Your task to perform on an android device: Search for usb-b on ebay, select the first entry, and add it to the cart. Image 0: 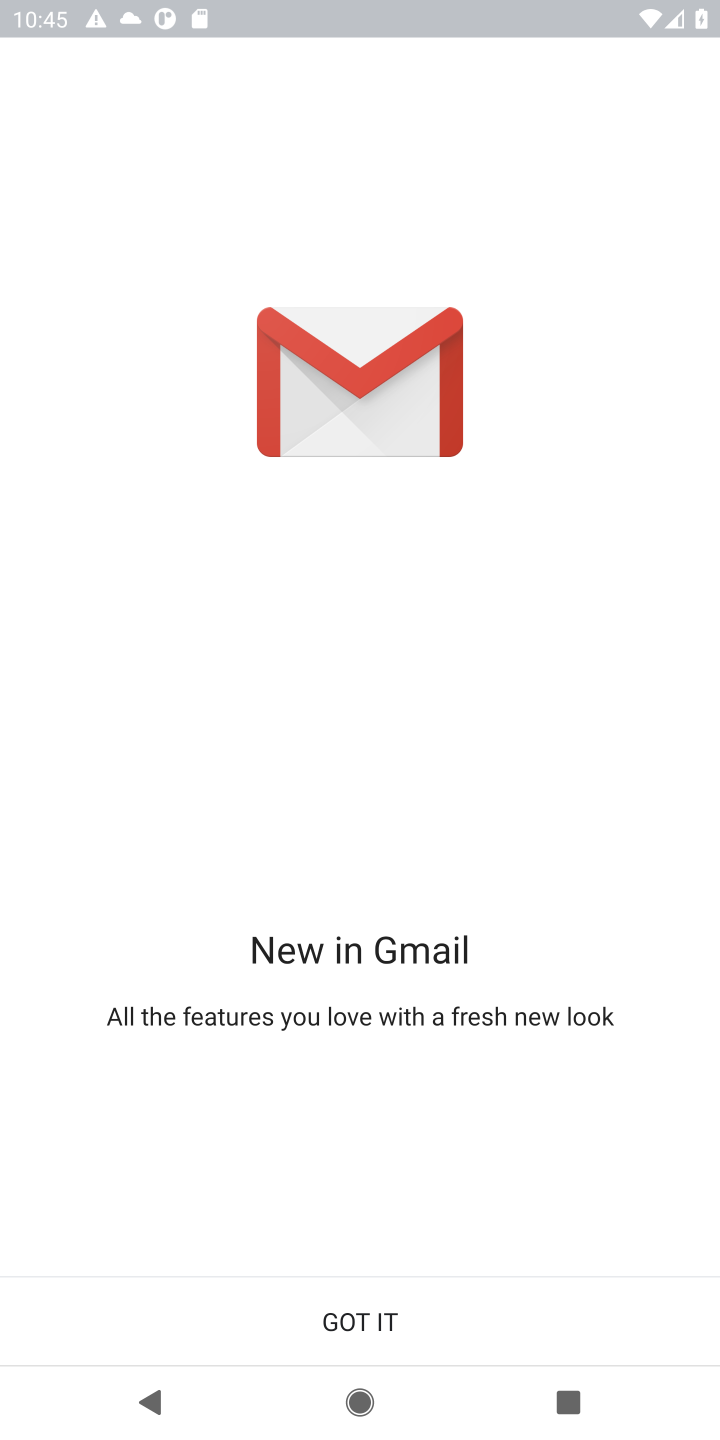
Step 0: press home button
Your task to perform on an android device: Search for usb-b on ebay, select the first entry, and add it to the cart. Image 1: 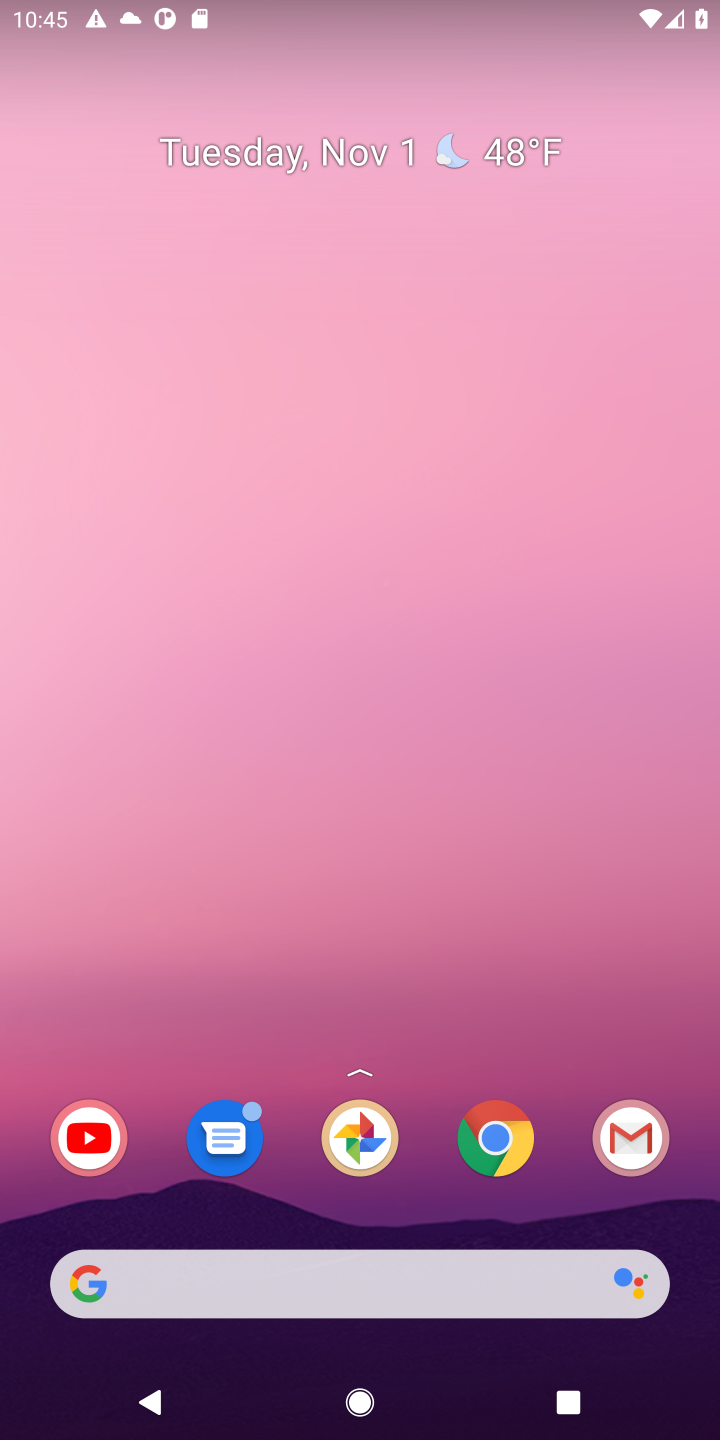
Step 1: drag from (428, 861) to (427, 0)
Your task to perform on an android device: Search for usb-b on ebay, select the first entry, and add it to the cart. Image 2: 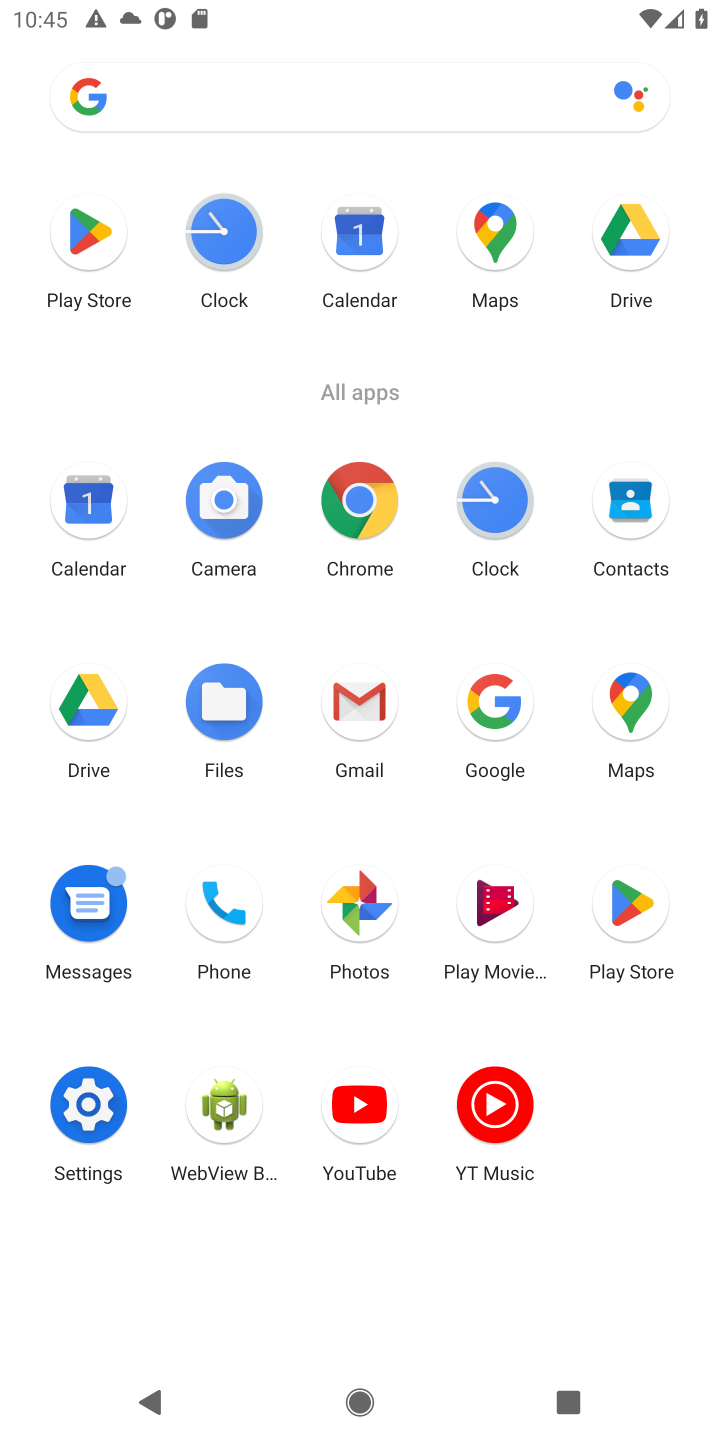
Step 2: click (349, 492)
Your task to perform on an android device: Search for usb-b on ebay, select the first entry, and add it to the cart. Image 3: 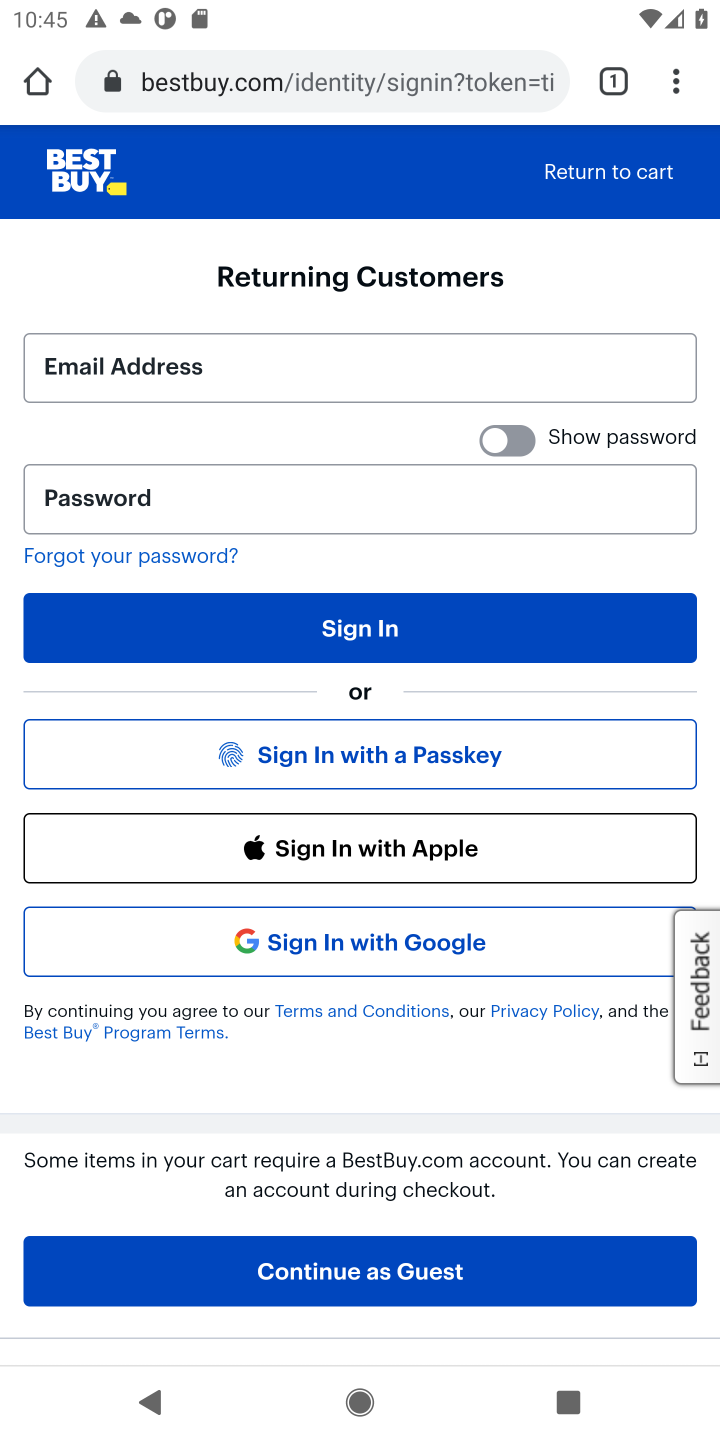
Step 3: click (268, 84)
Your task to perform on an android device: Search for usb-b on ebay, select the first entry, and add it to the cart. Image 4: 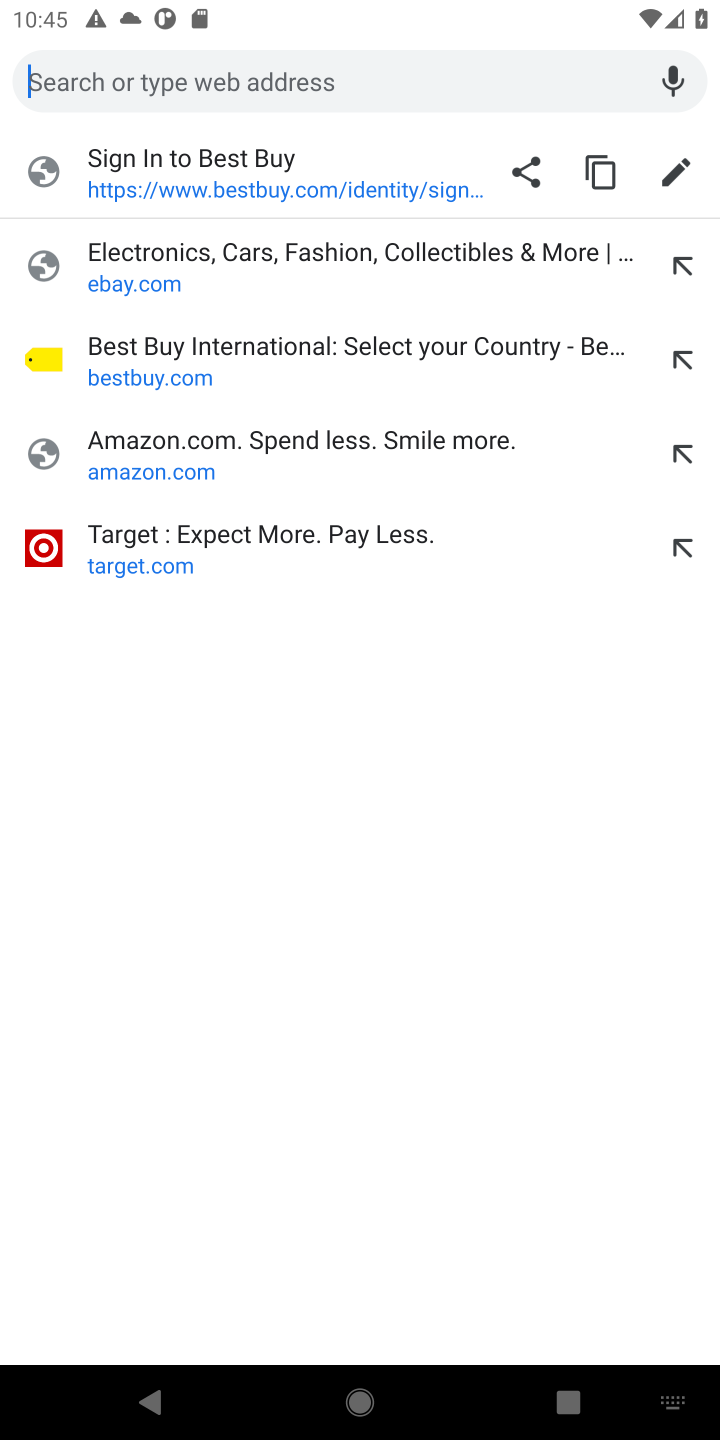
Step 4: type "ebay"
Your task to perform on an android device: Search for usb-b on ebay, select the first entry, and add it to the cart. Image 5: 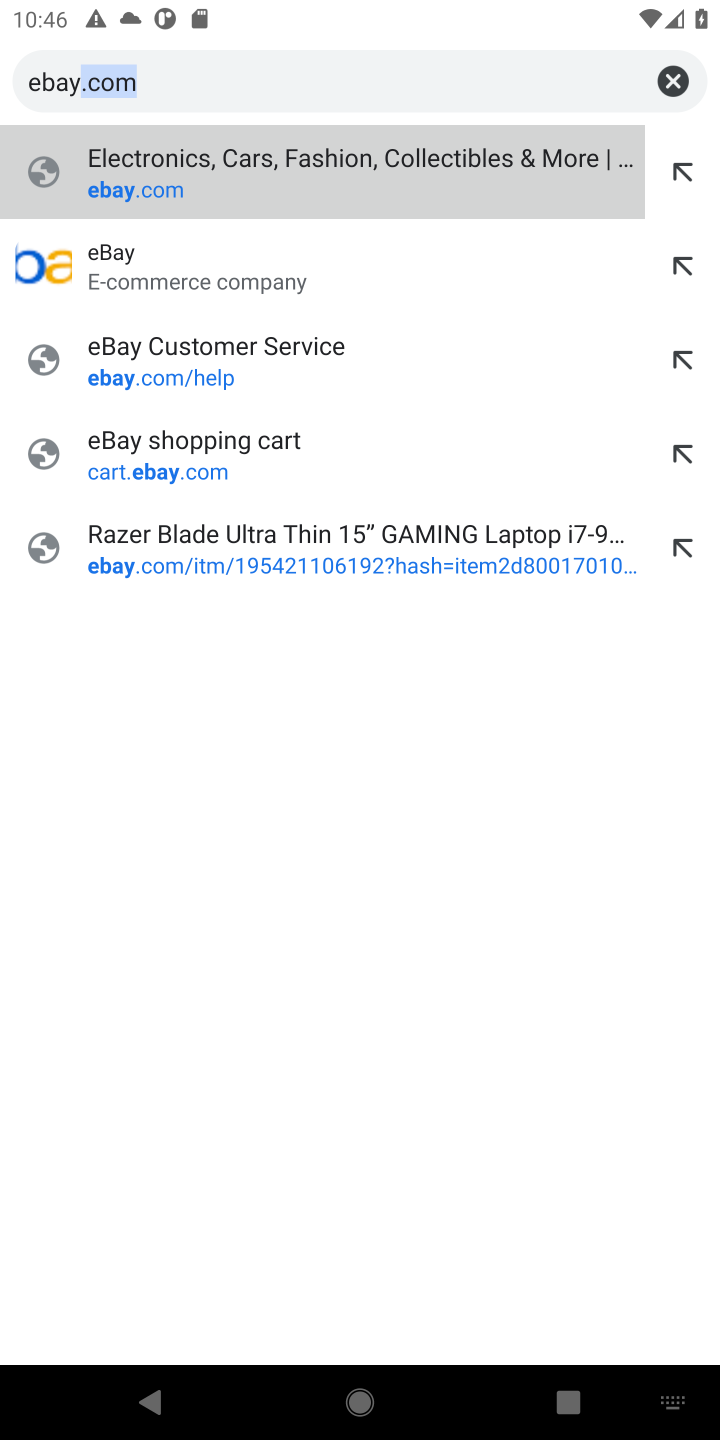
Step 5: click (141, 186)
Your task to perform on an android device: Search for usb-b on ebay, select the first entry, and add it to the cart. Image 6: 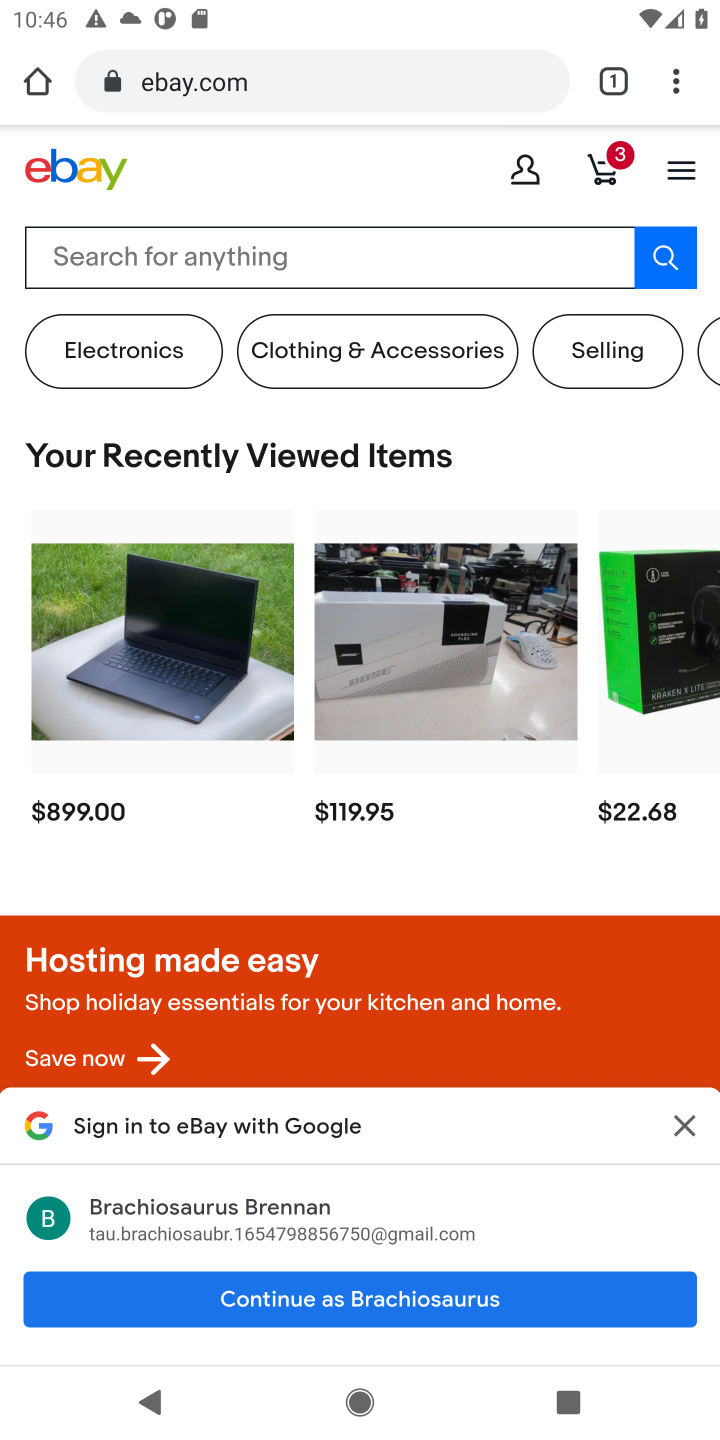
Step 6: click (117, 232)
Your task to perform on an android device: Search for usb-b on ebay, select the first entry, and add it to the cart. Image 7: 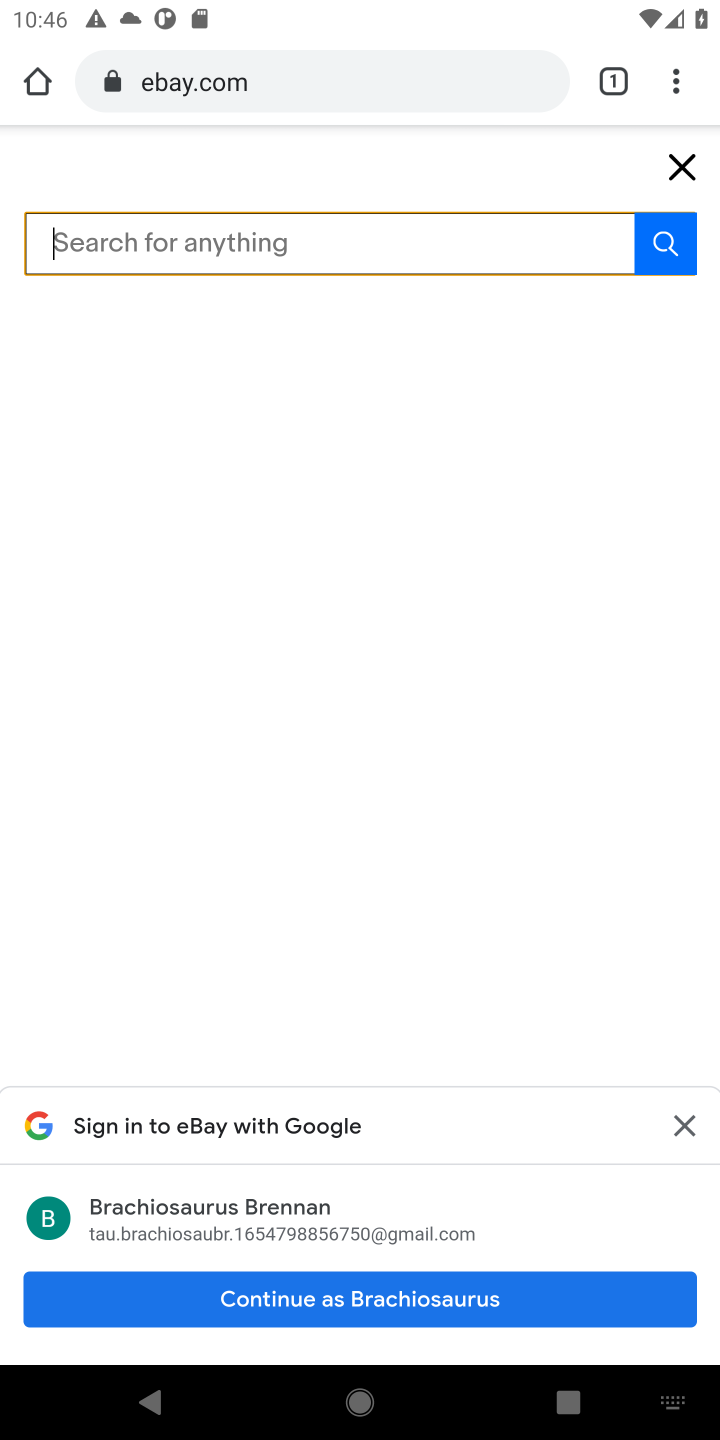
Step 7: type "usb-b"
Your task to perform on an android device: Search for usb-b on ebay, select the first entry, and add it to the cart. Image 8: 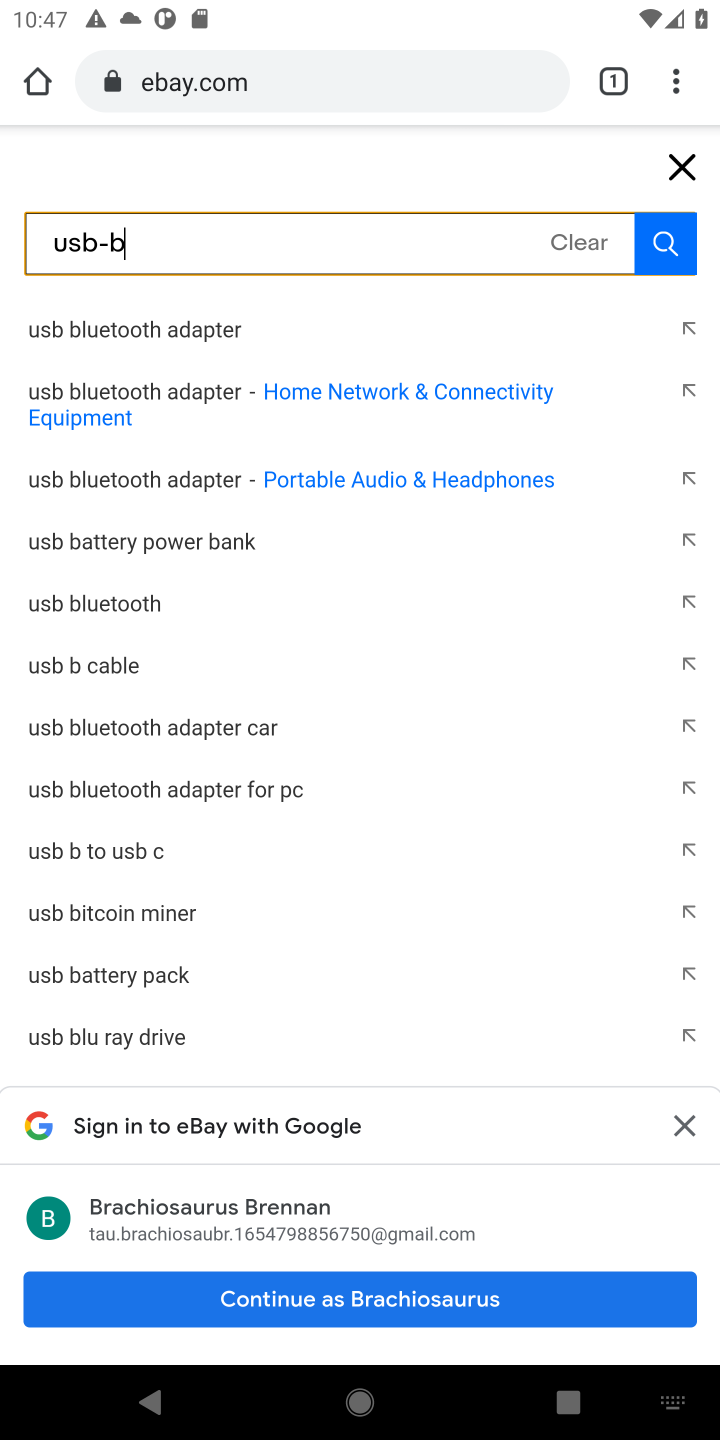
Step 8: click (147, 661)
Your task to perform on an android device: Search for usb-b on ebay, select the first entry, and add it to the cart. Image 9: 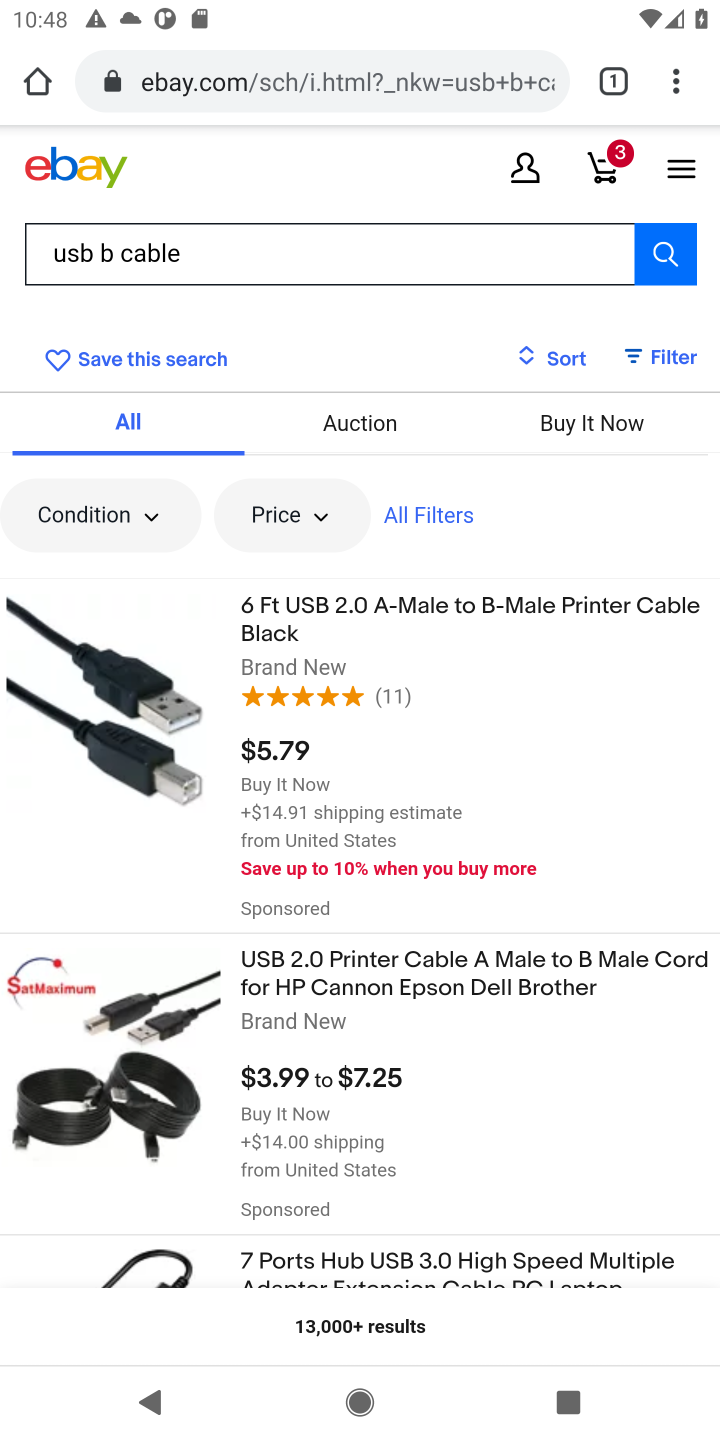
Step 9: click (337, 632)
Your task to perform on an android device: Search for usb-b on ebay, select the first entry, and add it to the cart. Image 10: 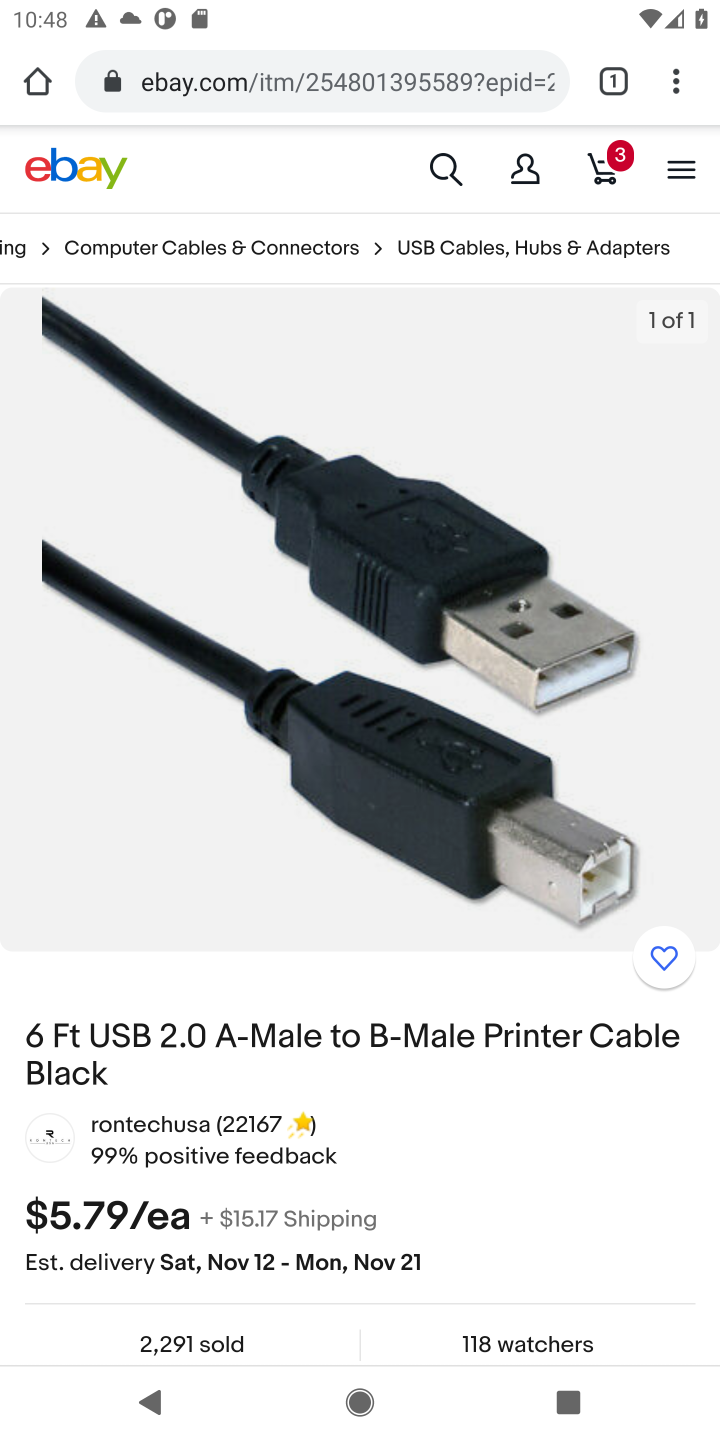
Step 10: drag from (412, 1228) to (449, 151)
Your task to perform on an android device: Search for usb-b on ebay, select the first entry, and add it to the cart. Image 11: 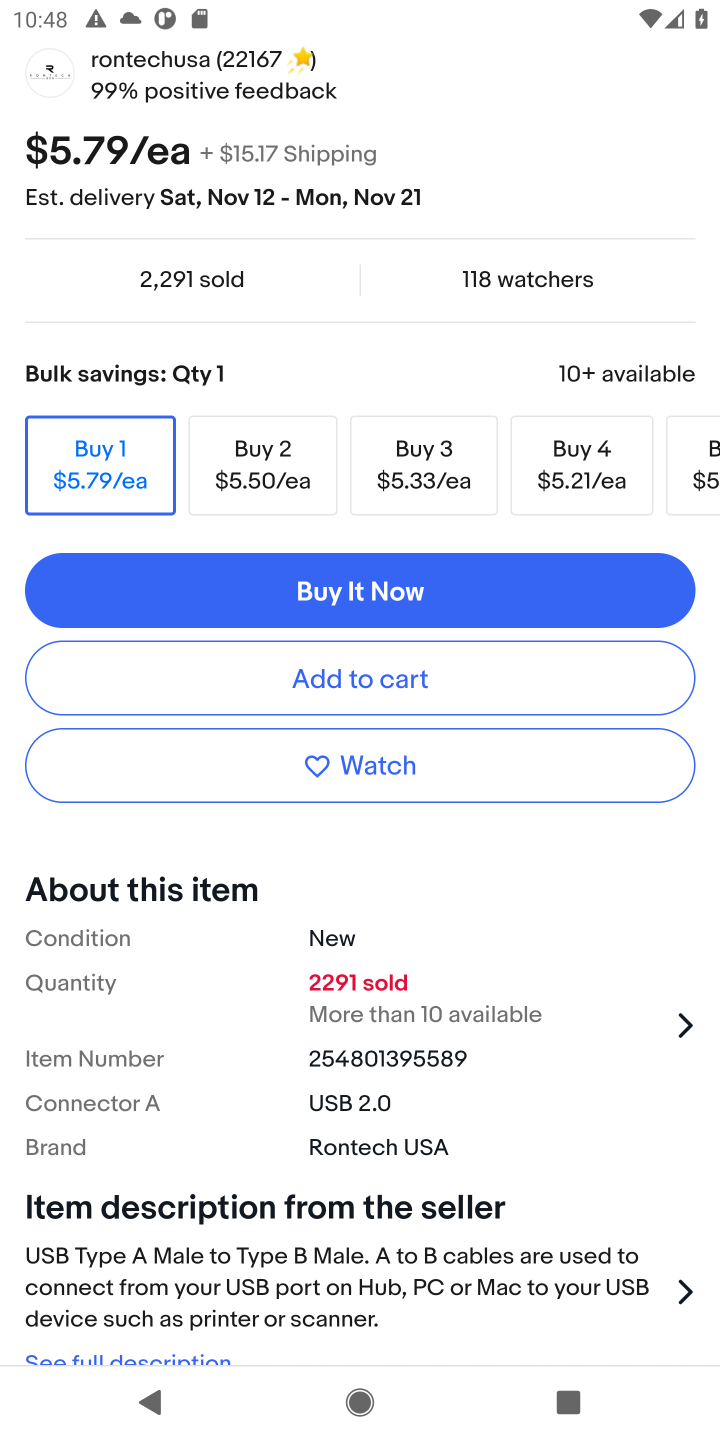
Step 11: click (349, 685)
Your task to perform on an android device: Search for usb-b on ebay, select the first entry, and add it to the cart. Image 12: 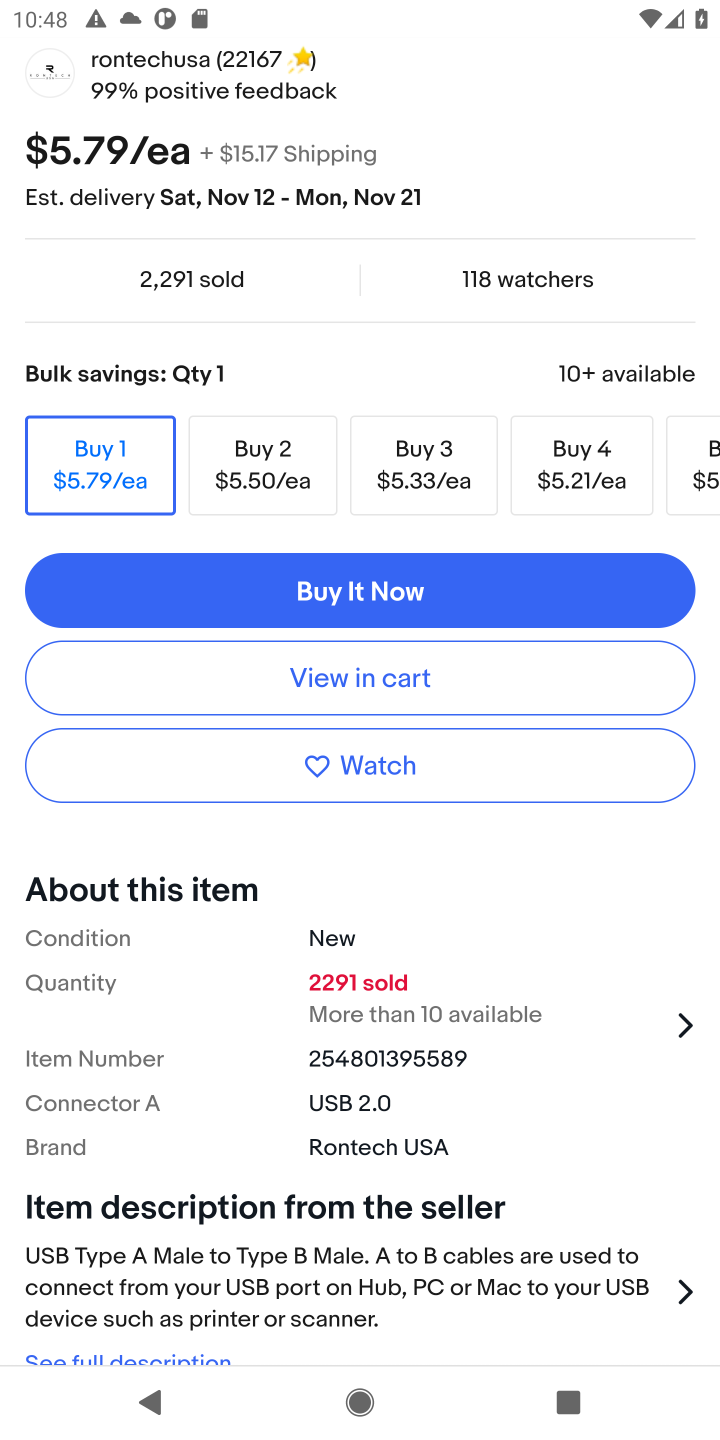
Step 12: click (375, 676)
Your task to perform on an android device: Search for usb-b on ebay, select the first entry, and add it to the cart. Image 13: 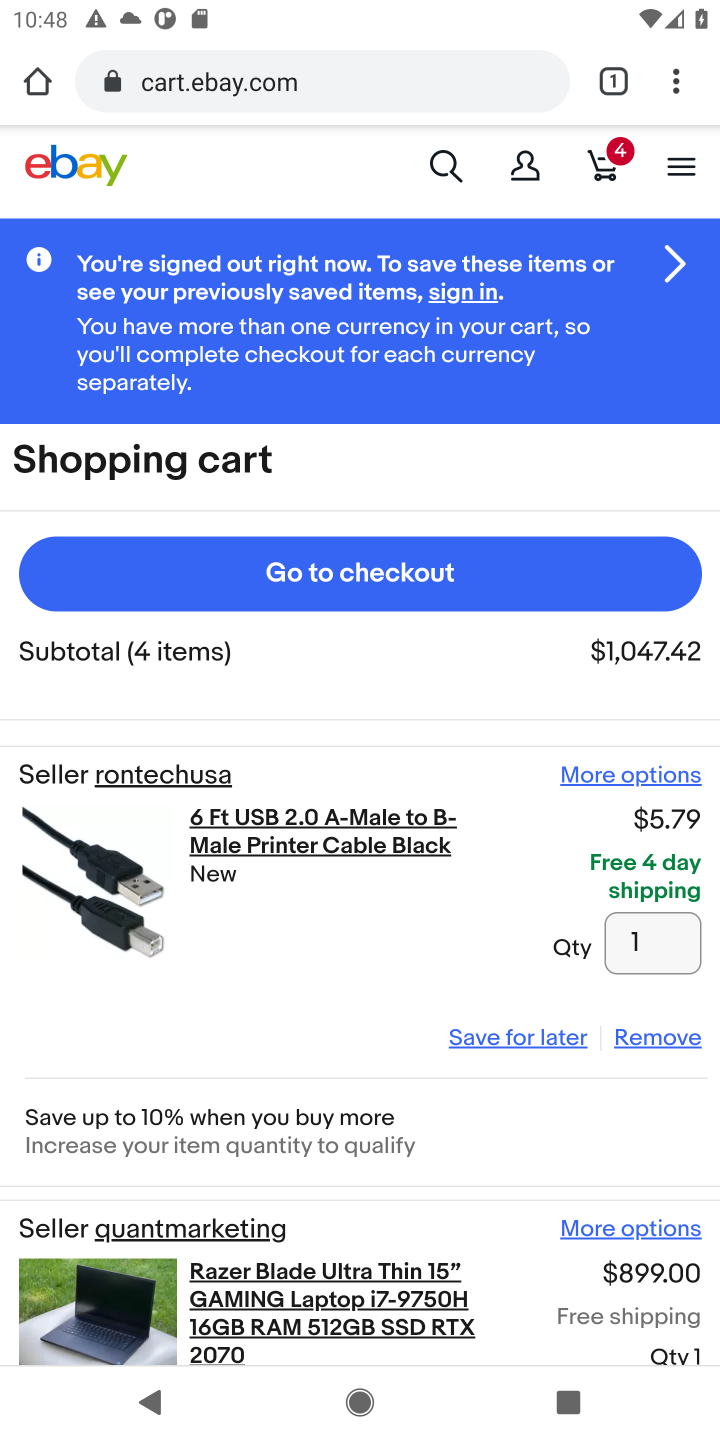
Step 13: task complete